Your task to perform on an android device: Open the phone app and click the voicemail tab. Image 0: 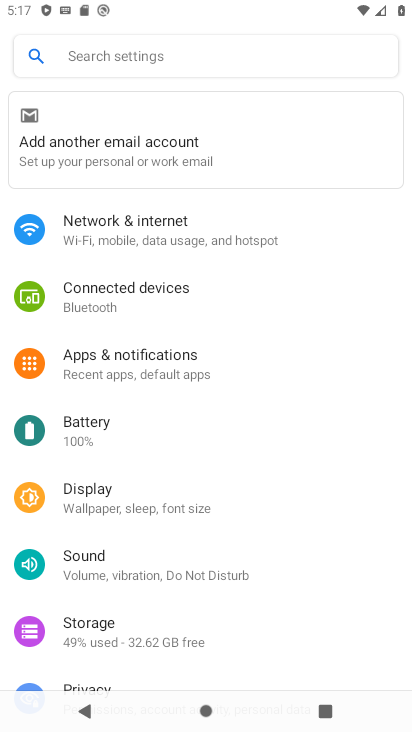
Step 0: press home button
Your task to perform on an android device: Open the phone app and click the voicemail tab. Image 1: 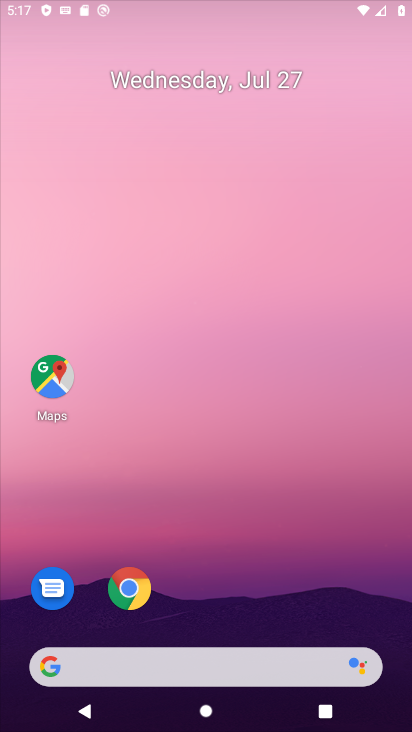
Step 1: drag from (247, 675) to (368, 117)
Your task to perform on an android device: Open the phone app and click the voicemail tab. Image 2: 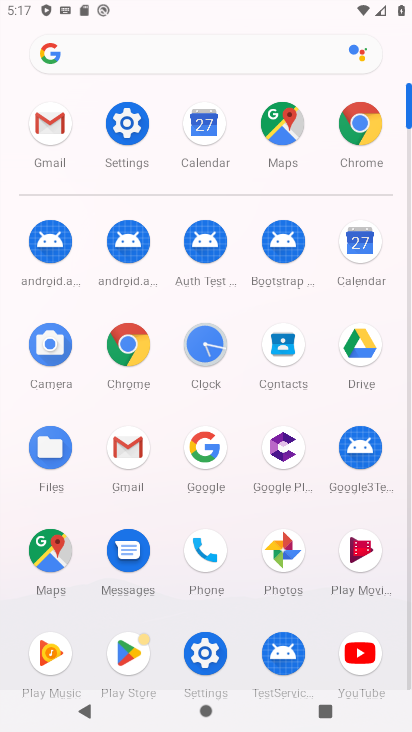
Step 2: click (205, 551)
Your task to perform on an android device: Open the phone app and click the voicemail tab. Image 3: 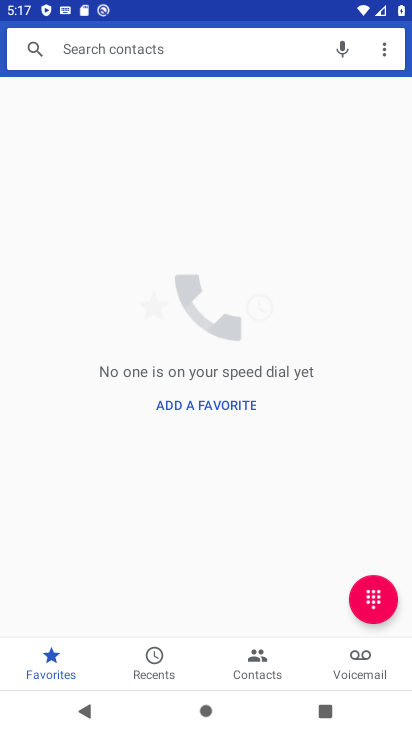
Step 3: click (352, 658)
Your task to perform on an android device: Open the phone app and click the voicemail tab. Image 4: 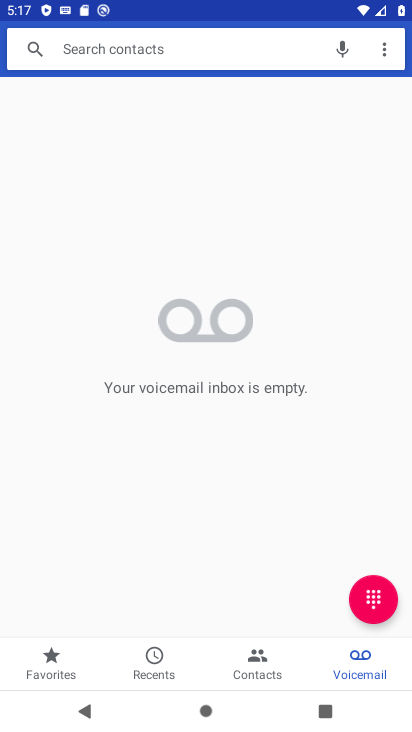
Step 4: task complete